Your task to perform on an android device: clear all cookies in the chrome app Image 0: 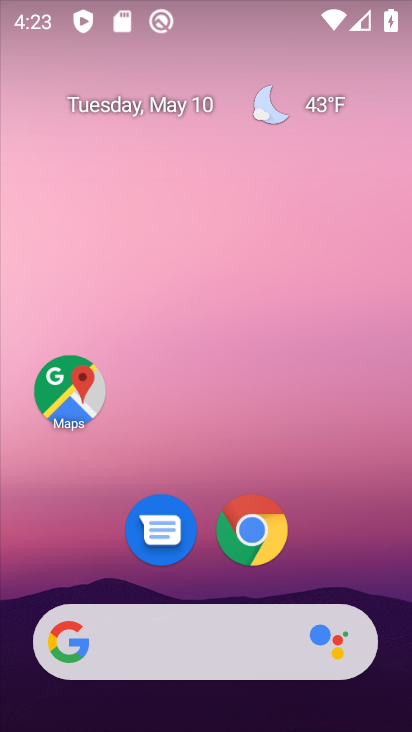
Step 0: click (250, 523)
Your task to perform on an android device: clear all cookies in the chrome app Image 1: 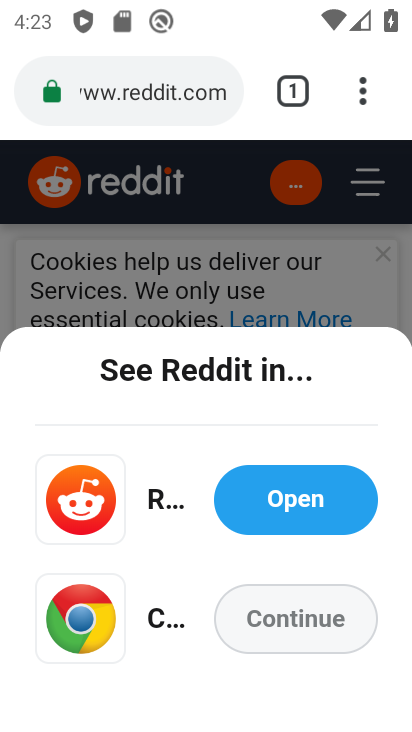
Step 1: click (375, 103)
Your task to perform on an android device: clear all cookies in the chrome app Image 2: 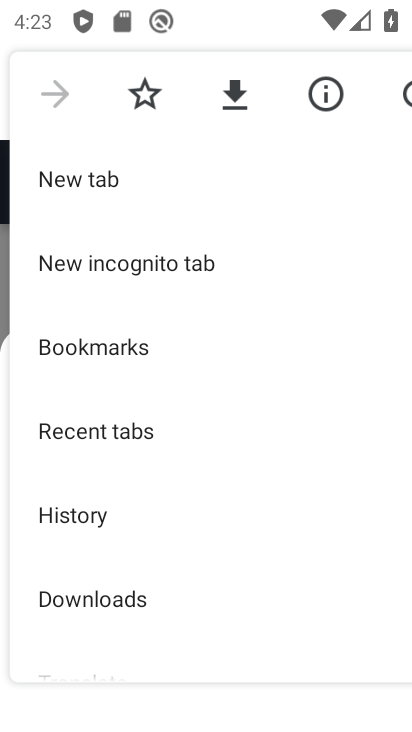
Step 2: drag from (216, 610) to (205, 207)
Your task to perform on an android device: clear all cookies in the chrome app Image 3: 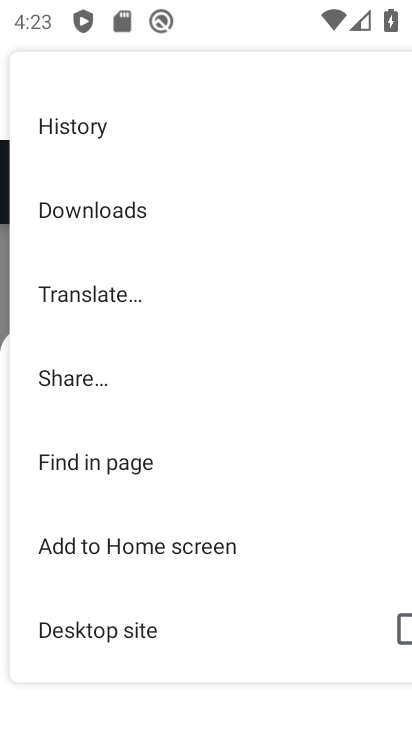
Step 3: drag from (215, 566) to (184, 145)
Your task to perform on an android device: clear all cookies in the chrome app Image 4: 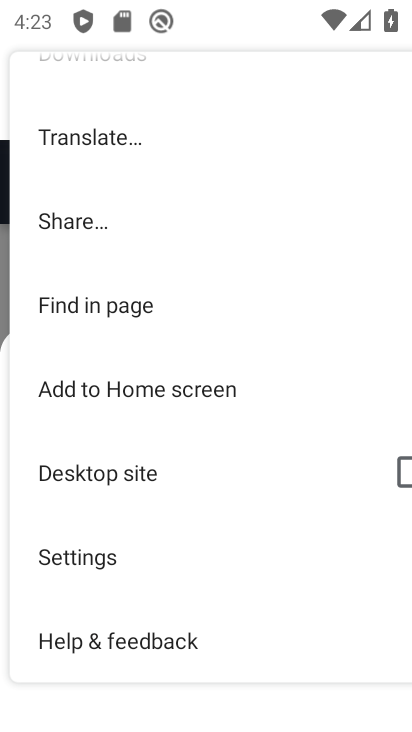
Step 4: click (172, 565)
Your task to perform on an android device: clear all cookies in the chrome app Image 5: 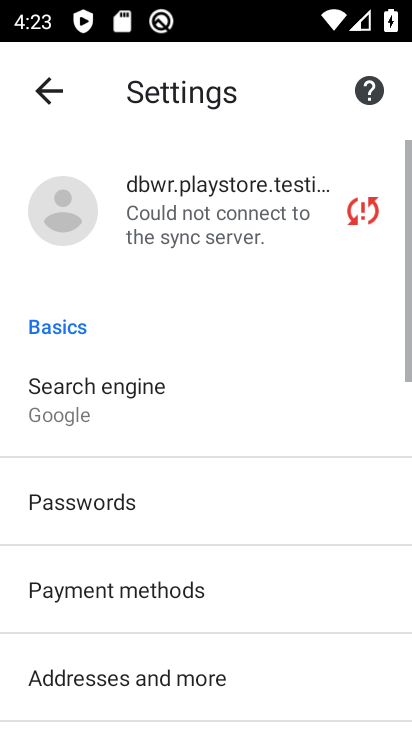
Step 5: drag from (243, 585) to (247, 117)
Your task to perform on an android device: clear all cookies in the chrome app Image 6: 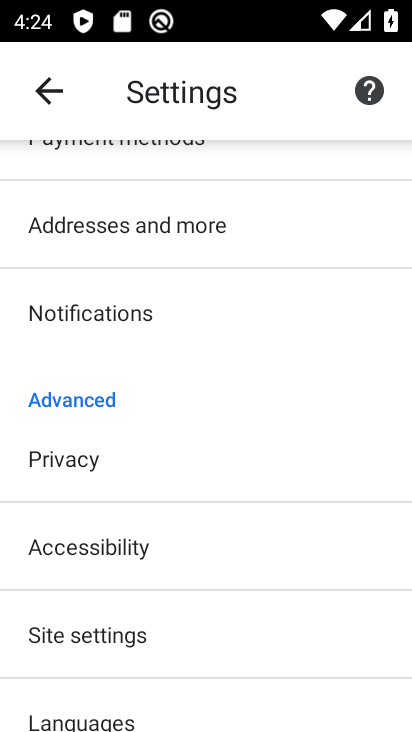
Step 6: drag from (242, 607) to (235, 235)
Your task to perform on an android device: clear all cookies in the chrome app Image 7: 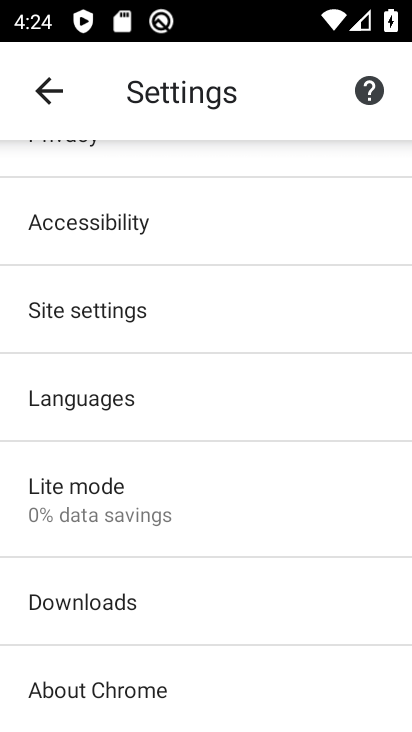
Step 7: drag from (263, 613) to (235, 242)
Your task to perform on an android device: clear all cookies in the chrome app Image 8: 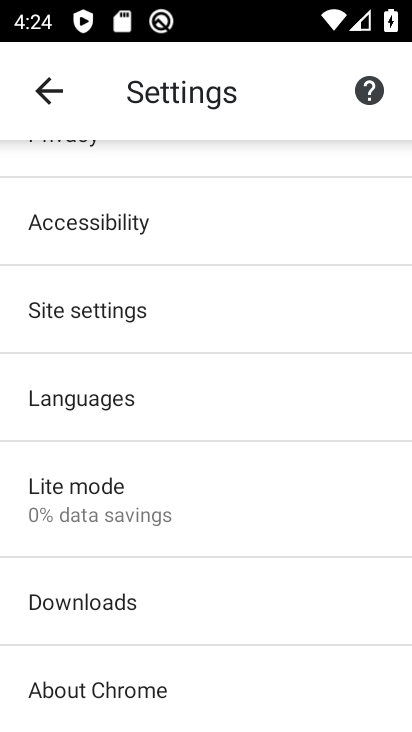
Step 8: drag from (275, 191) to (290, 564)
Your task to perform on an android device: clear all cookies in the chrome app Image 9: 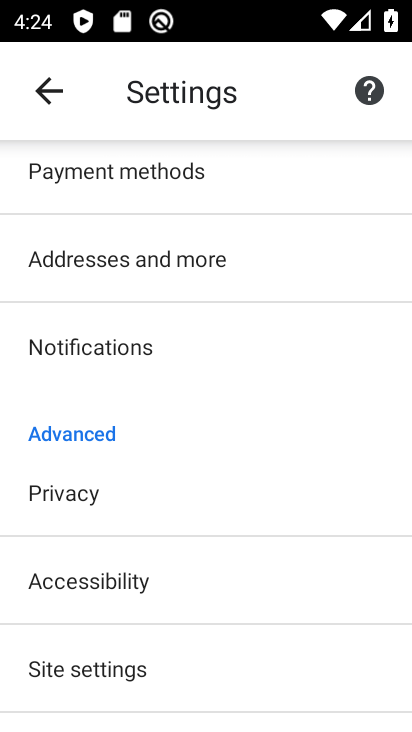
Step 9: click (140, 481)
Your task to perform on an android device: clear all cookies in the chrome app Image 10: 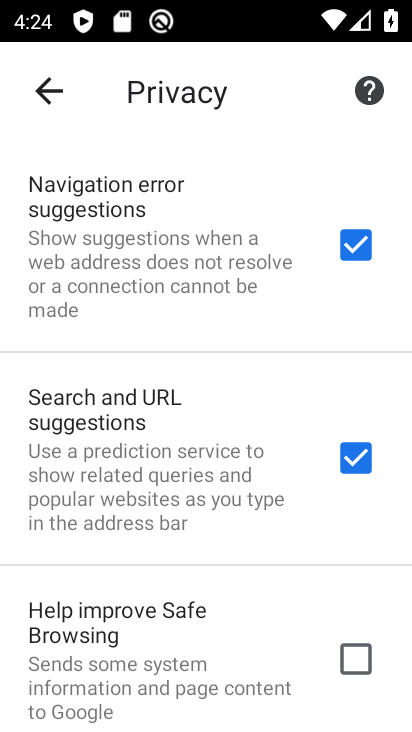
Step 10: drag from (230, 611) to (261, 159)
Your task to perform on an android device: clear all cookies in the chrome app Image 11: 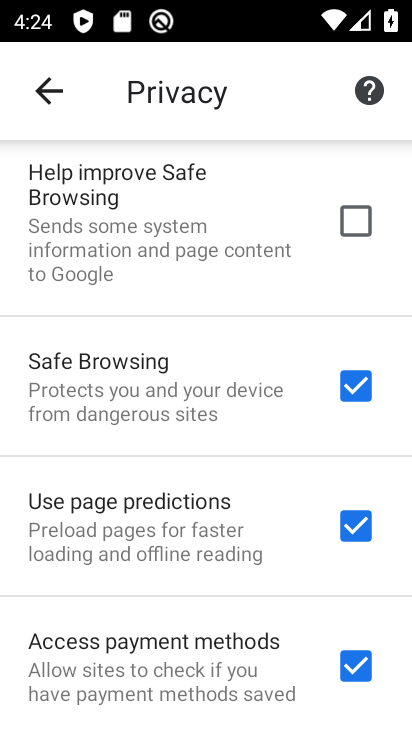
Step 11: drag from (239, 288) to (285, 74)
Your task to perform on an android device: clear all cookies in the chrome app Image 12: 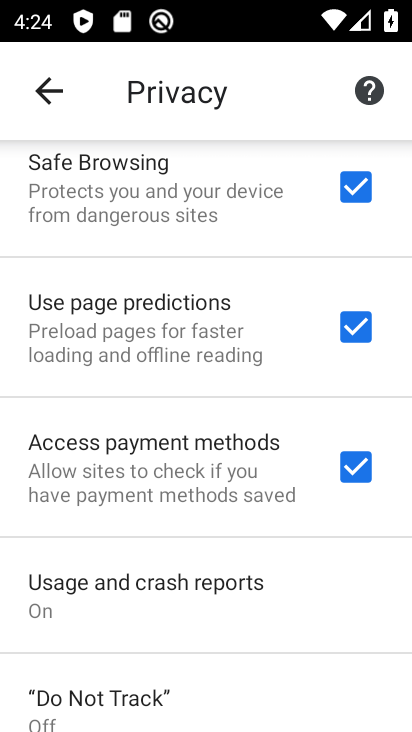
Step 12: drag from (273, 653) to (286, 162)
Your task to perform on an android device: clear all cookies in the chrome app Image 13: 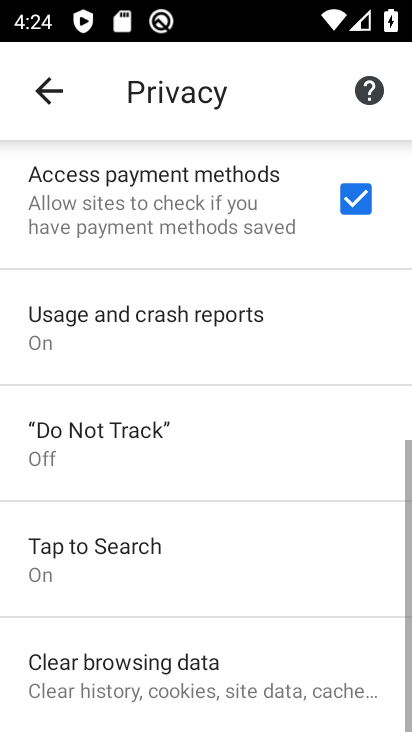
Step 13: click (219, 667)
Your task to perform on an android device: clear all cookies in the chrome app Image 14: 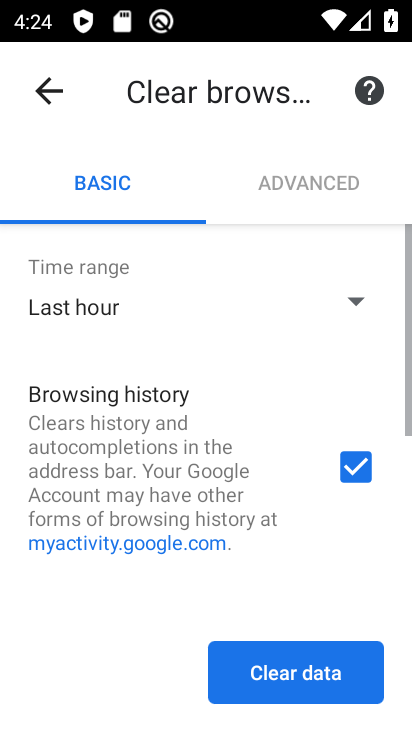
Step 14: drag from (244, 537) to (273, 197)
Your task to perform on an android device: clear all cookies in the chrome app Image 15: 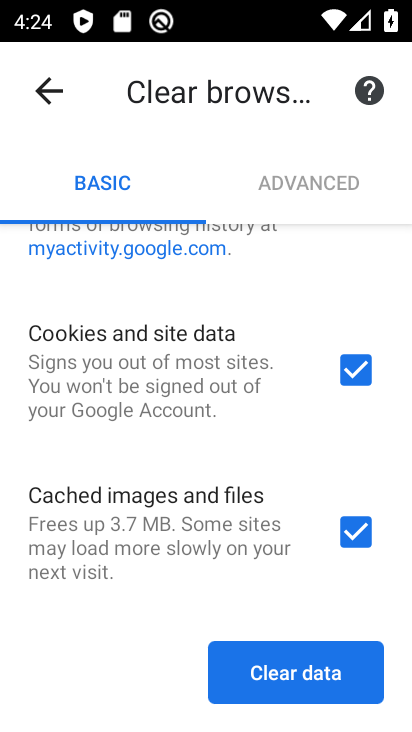
Step 15: click (279, 687)
Your task to perform on an android device: clear all cookies in the chrome app Image 16: 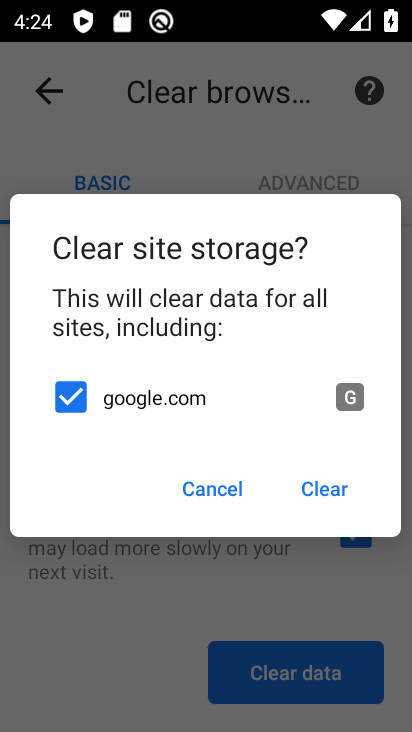
Step 16: click (323, 476)
Your task to perform on an android device: clear all cookies in the chrome app Image 17: 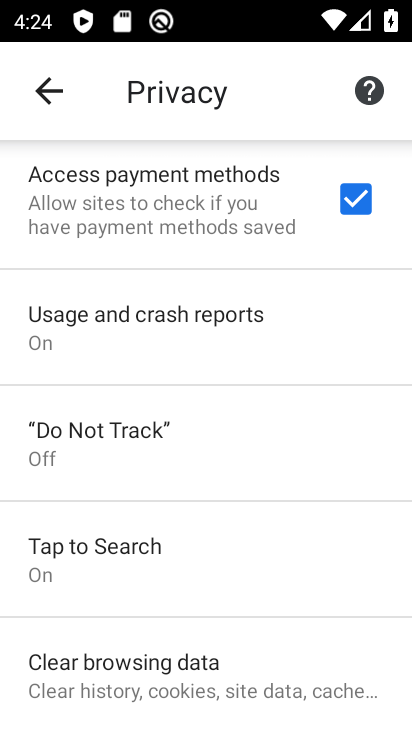
Step 17: task complete